Your task to perform on an android device: turn on the 12-hour format for clock Image 0: 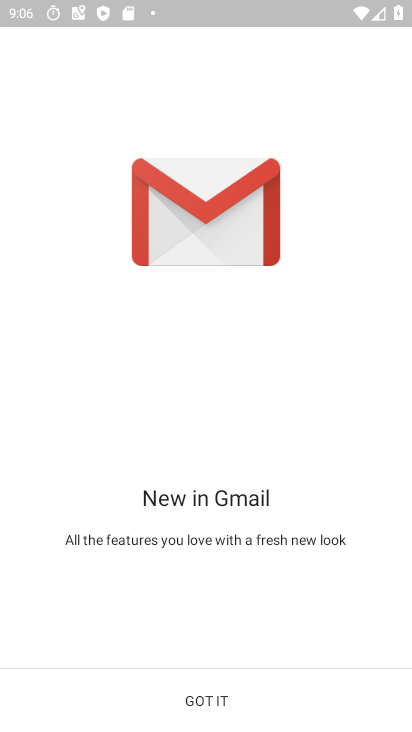
Step 0: press home button
Your task to perform on an android device: turn on the 12-hour format for clock Image 1: 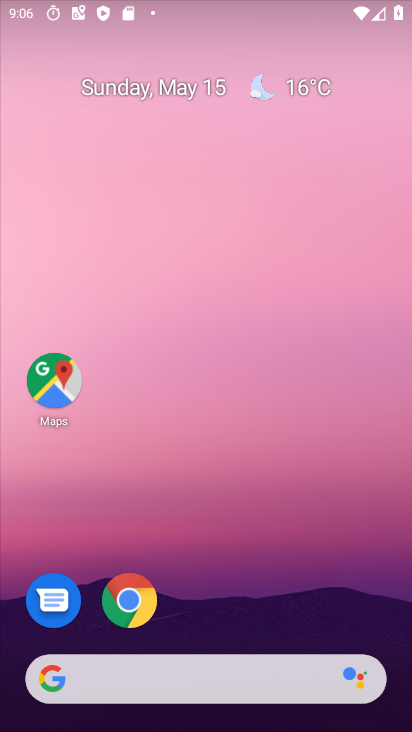
Step 1: drag from (245, 438) to (246, 90)
Your task to perform on an android device: turn on the 12-hour format for clock Image 2: 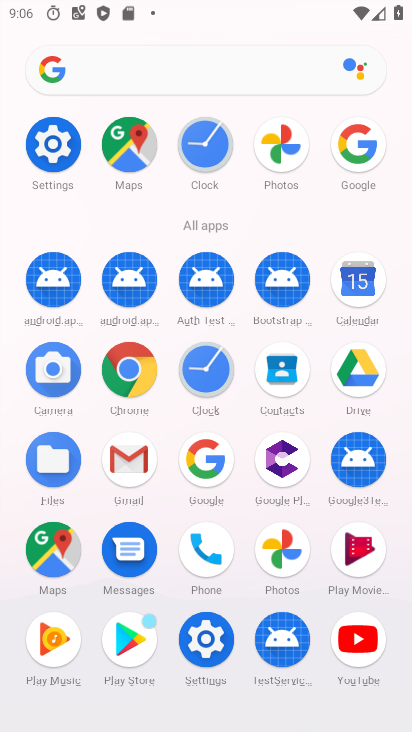
Step 2: click (204, 146)
Your task to perform on an android device: turn on the 12-hour format for clock Image 3: 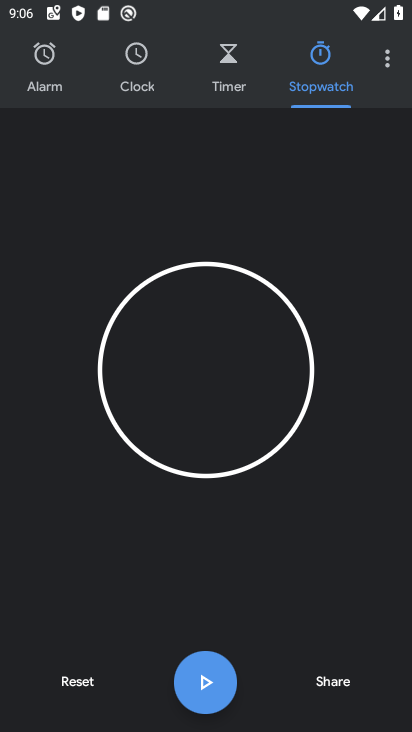
Step 3: click (381, 66)
Your task to perform on an android device: turn on the 12-hour format for clock Image 4: 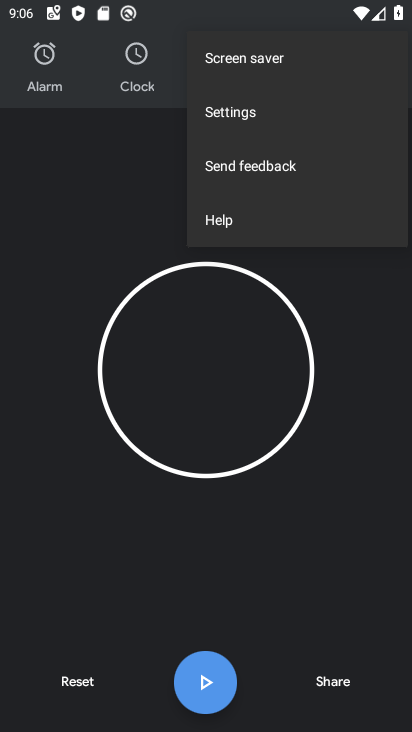
Step 4: click (234, 124)
Your task to perform on an android device: turn on the 12-hour format for clock Image 5: 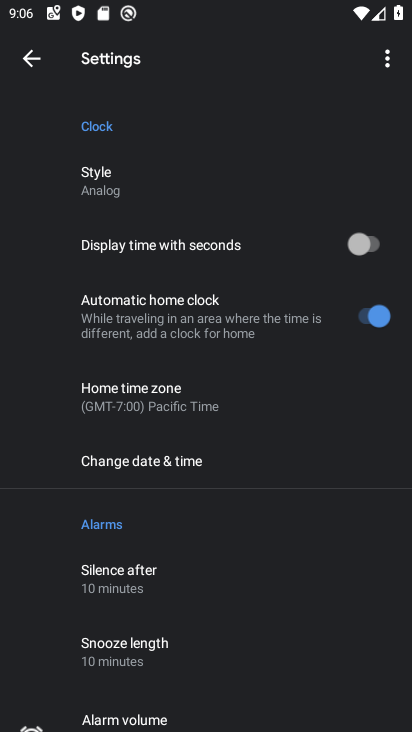
Step 5: click (162, 457)
Your task to perform on an android device: turn on the 12-hour format for clock Image 6: 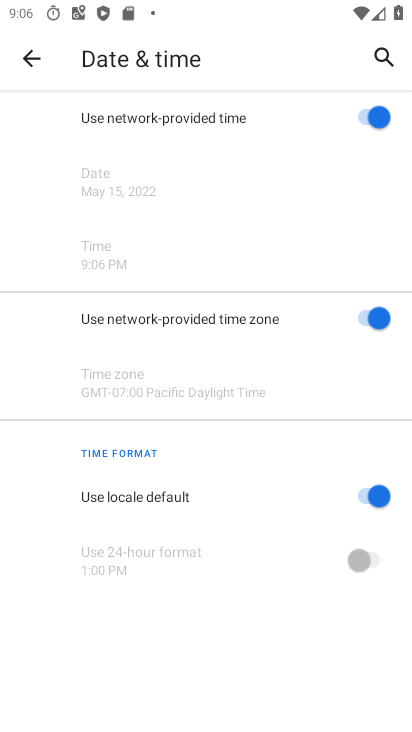
Step 6: task complete